Your task to perform on an android device: install app "PUBG MOBILE" Image 0: 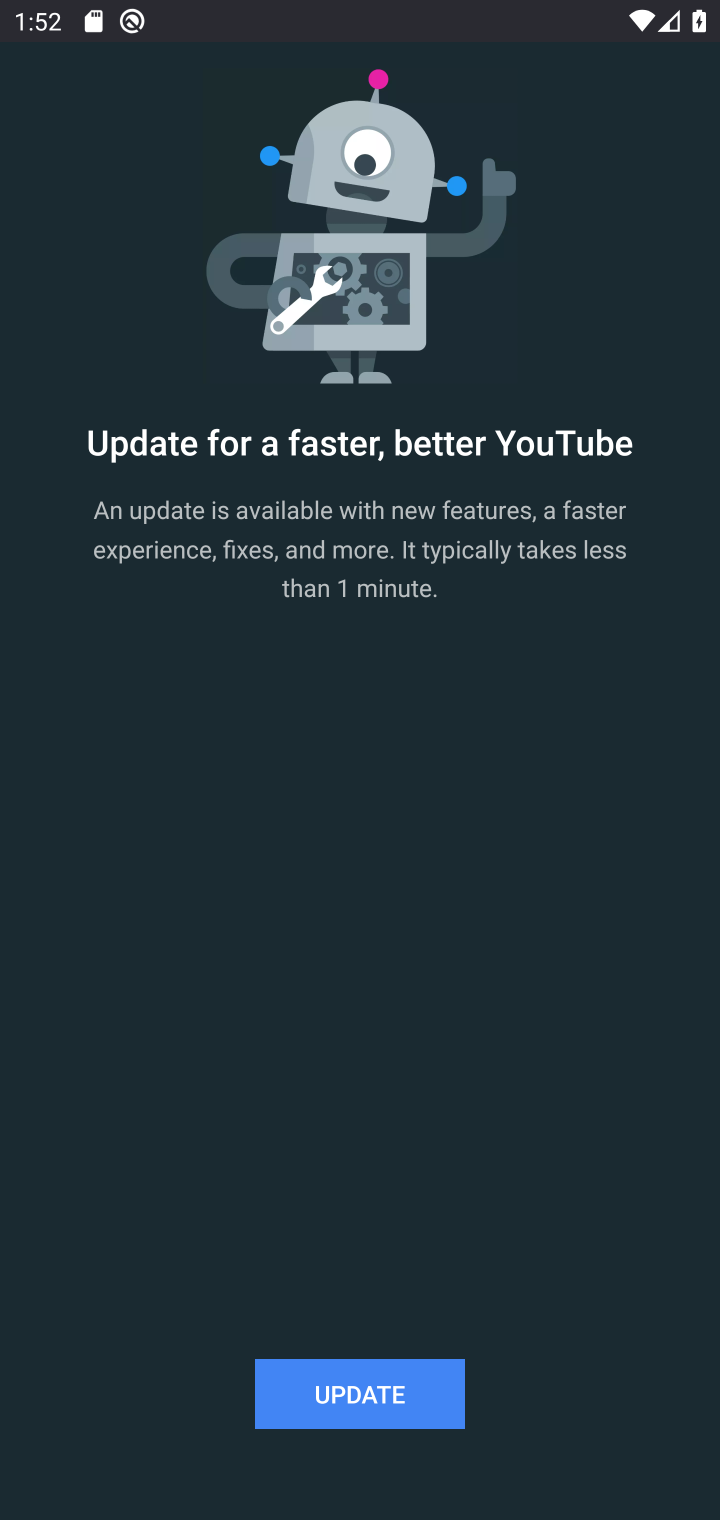
Step 0: press home button
Your task to perform on an android device: install app "PUBG MOBILE" Image 1: 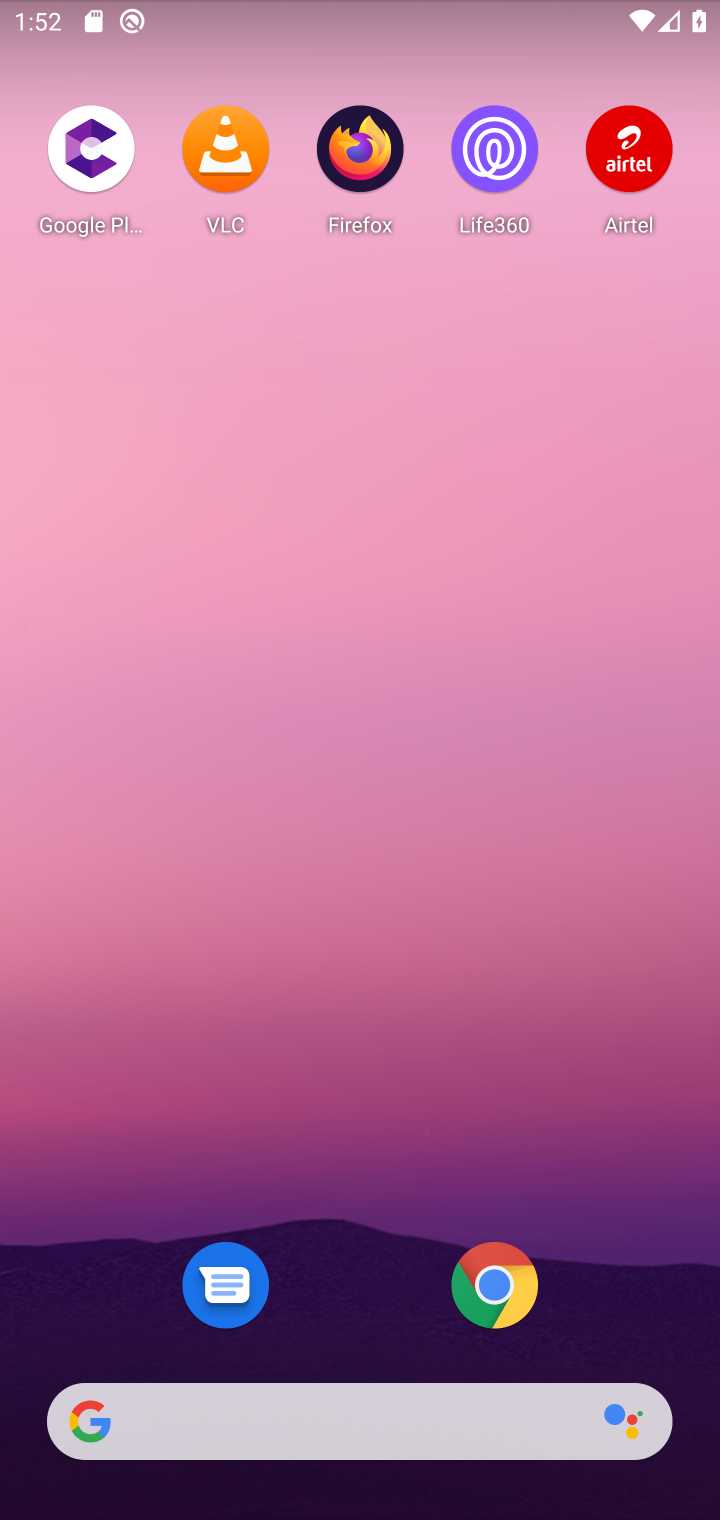
Step 1: drag from (648, 1091) to (406, 521)
Your task to perform on an android device: install app "PUBG MOBILE" Image 2: 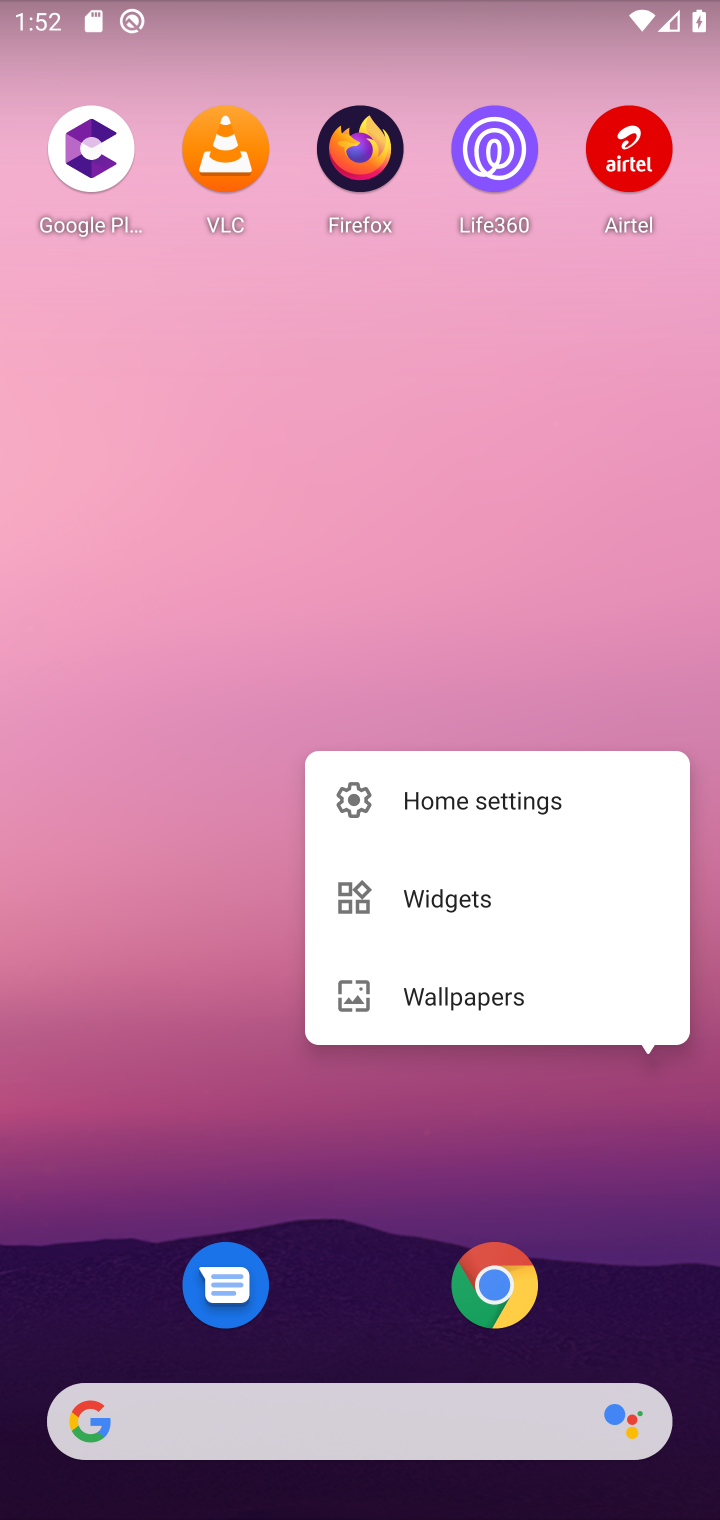
Step 2: click (277, 1075)
Your task to perform on an android device: install app "PUBG MOBILE" Image 3: 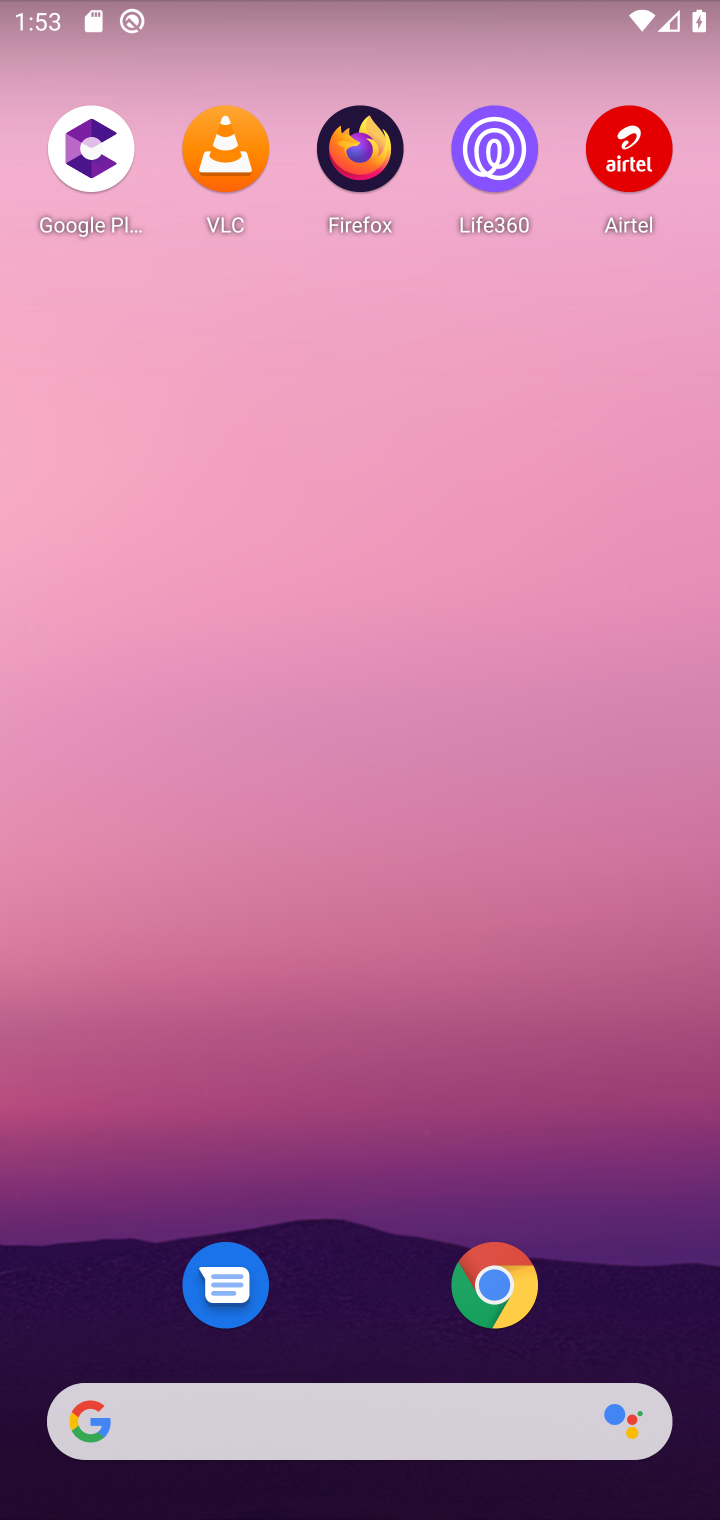
Step 3: drag from (394, 1159) to (495, 736)
Your task to perform on an android device: install app "PUBG MOBILE" Image 4: 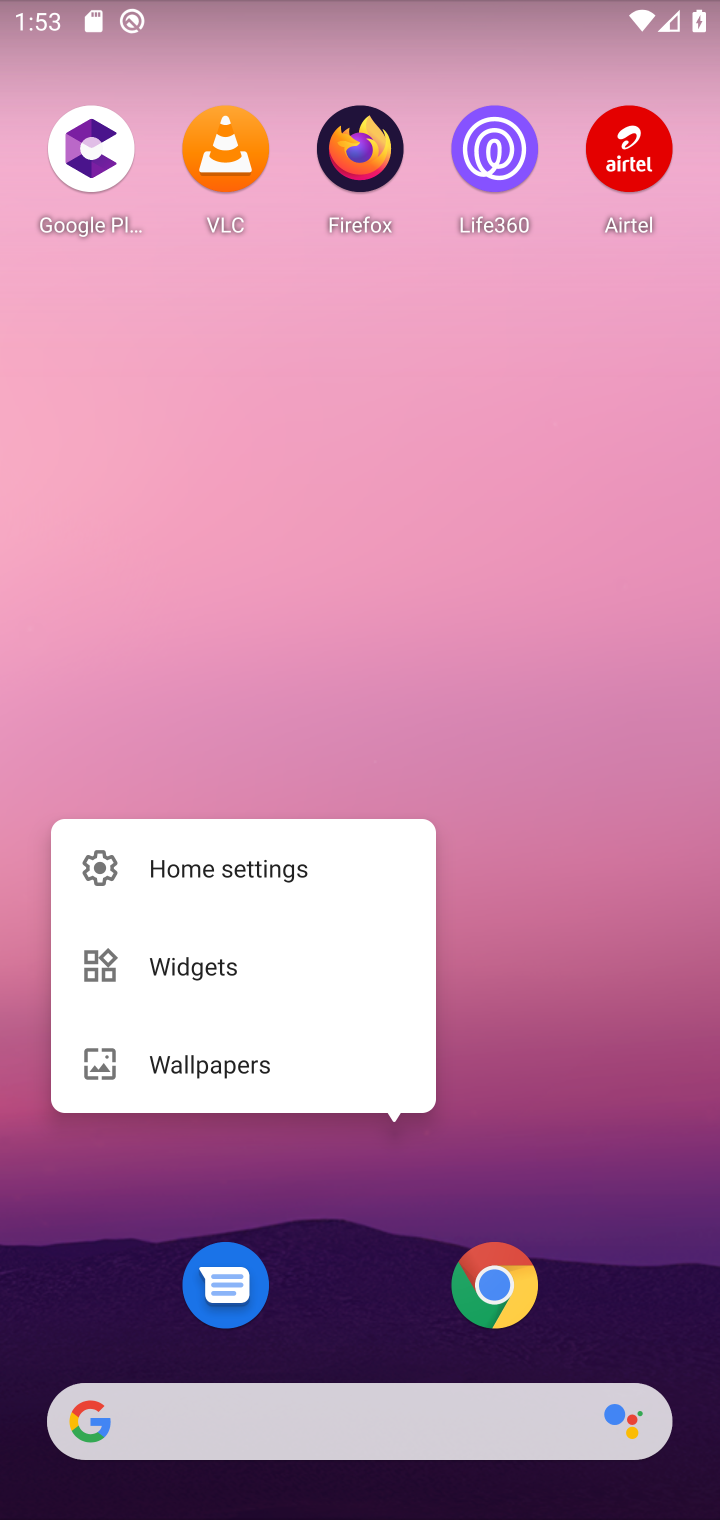
Step 4: click (505, 753)
Your task to perform on an android device: install app "PUBG MOBILE" Image 5: 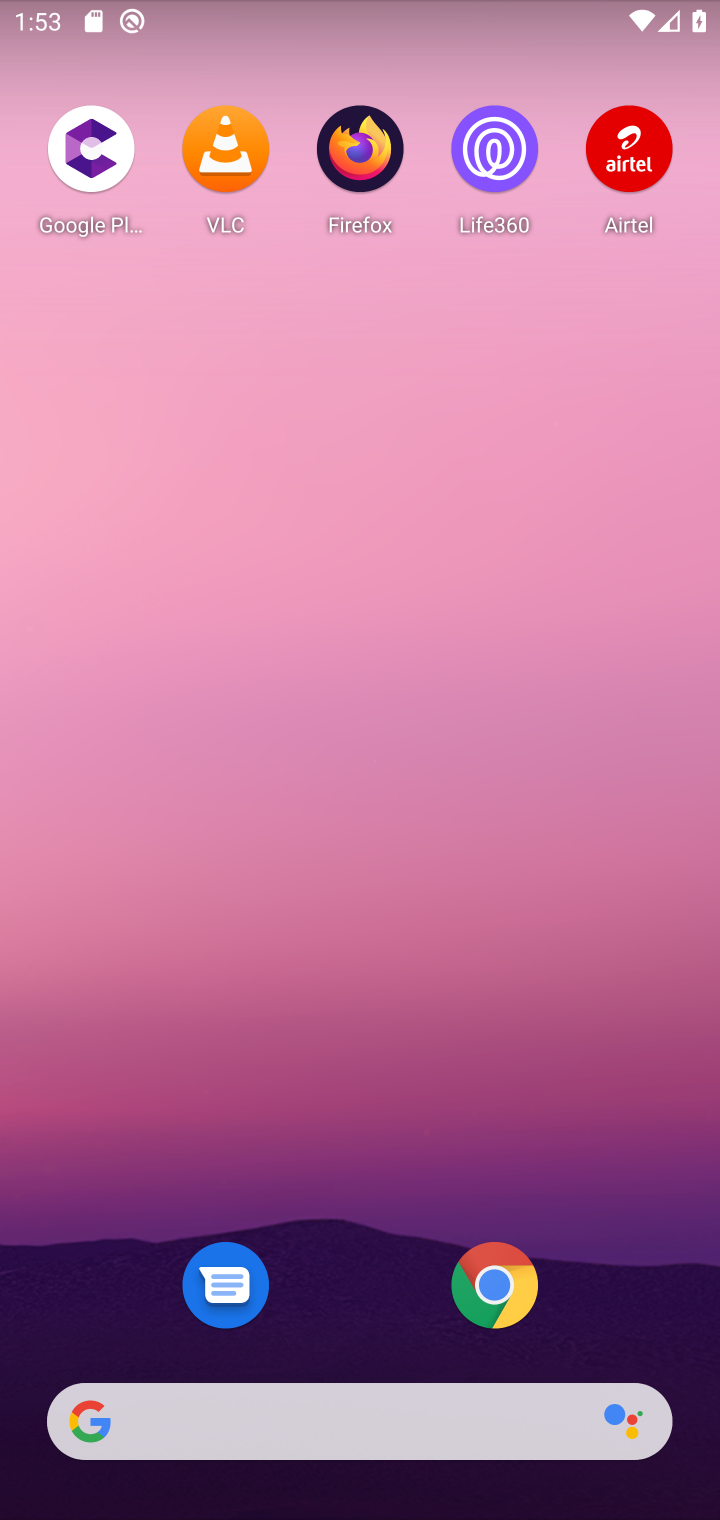
Step 5: drag from (406, 1111) to (425, 178)
Your task to perform on an android device: install app "PUBG MOBILE" Image 6: 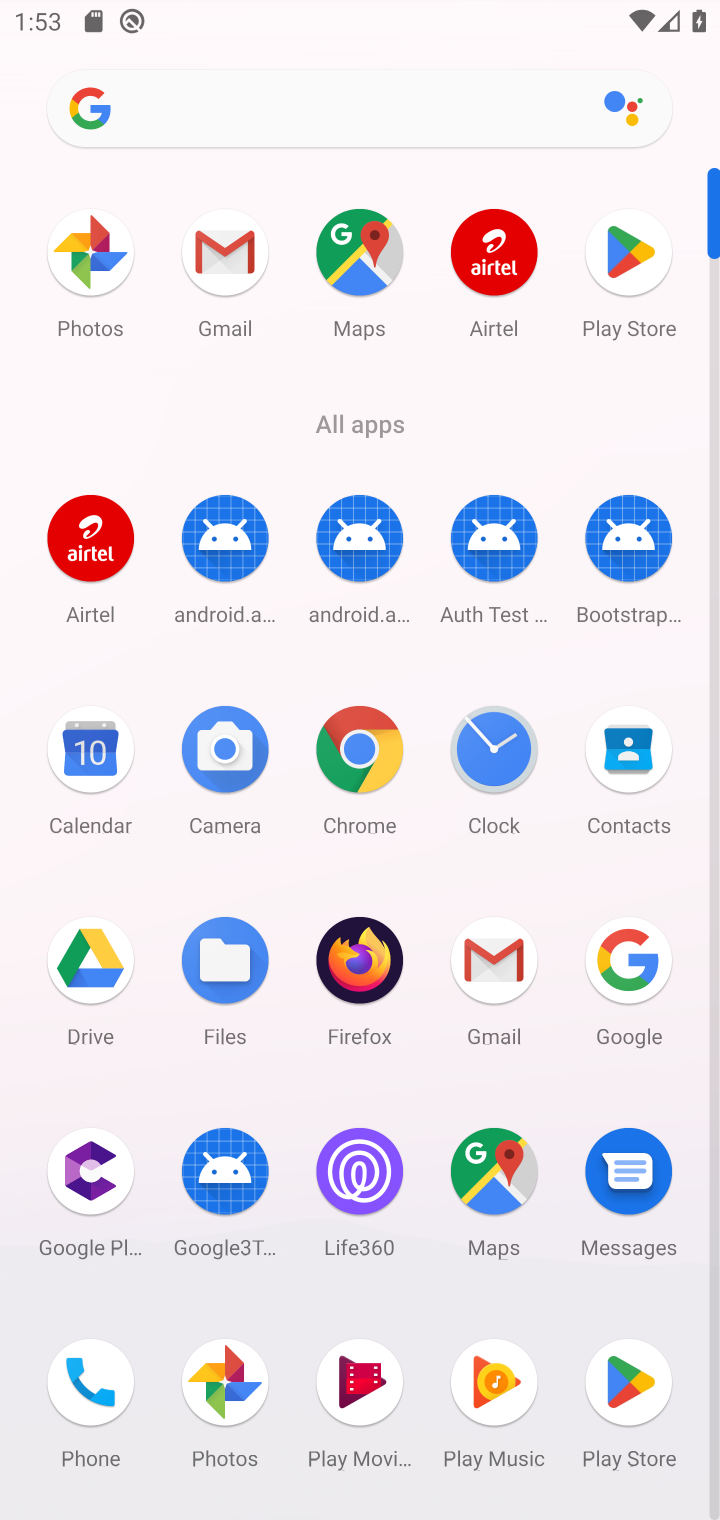
Step 6: click (642, 273)
Your task to perform on an android device: install app "PUBG MOBILE" Image 7: 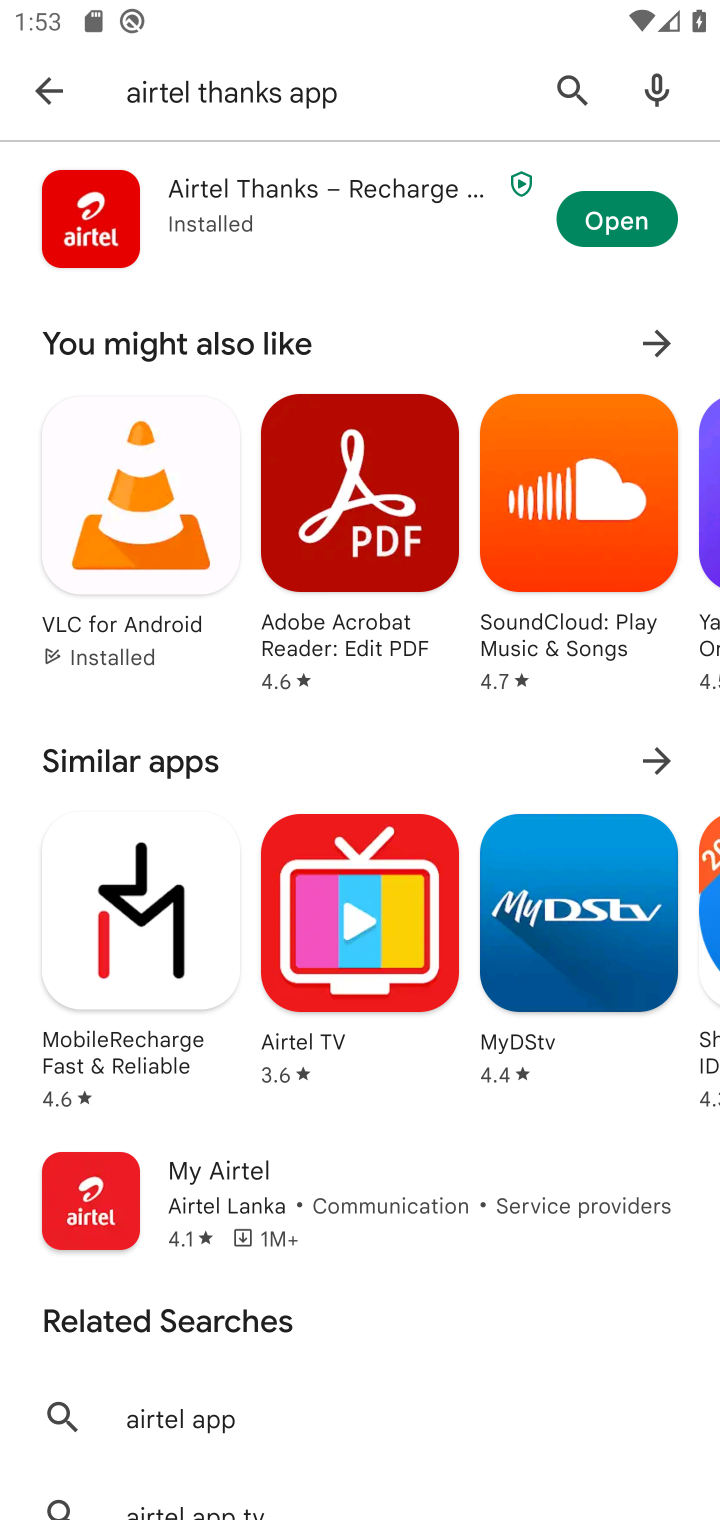
Step 7: click (574, 84)
Your task to perform on an android device: install app "PUBG MOBILE" Image 8: 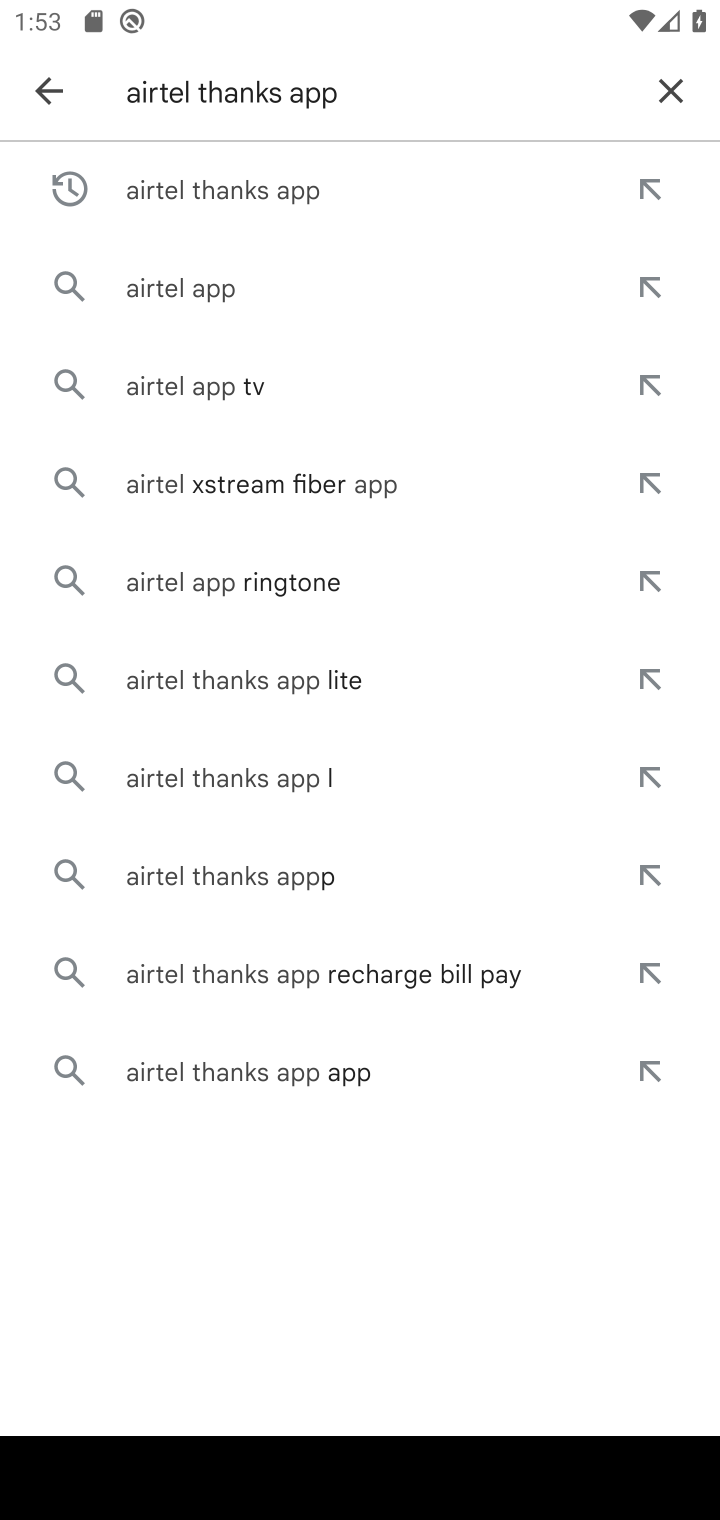
Step 8: click (656, 91)
Your task to perform on an android device: install app "PUBG MOBILE" Image 9: 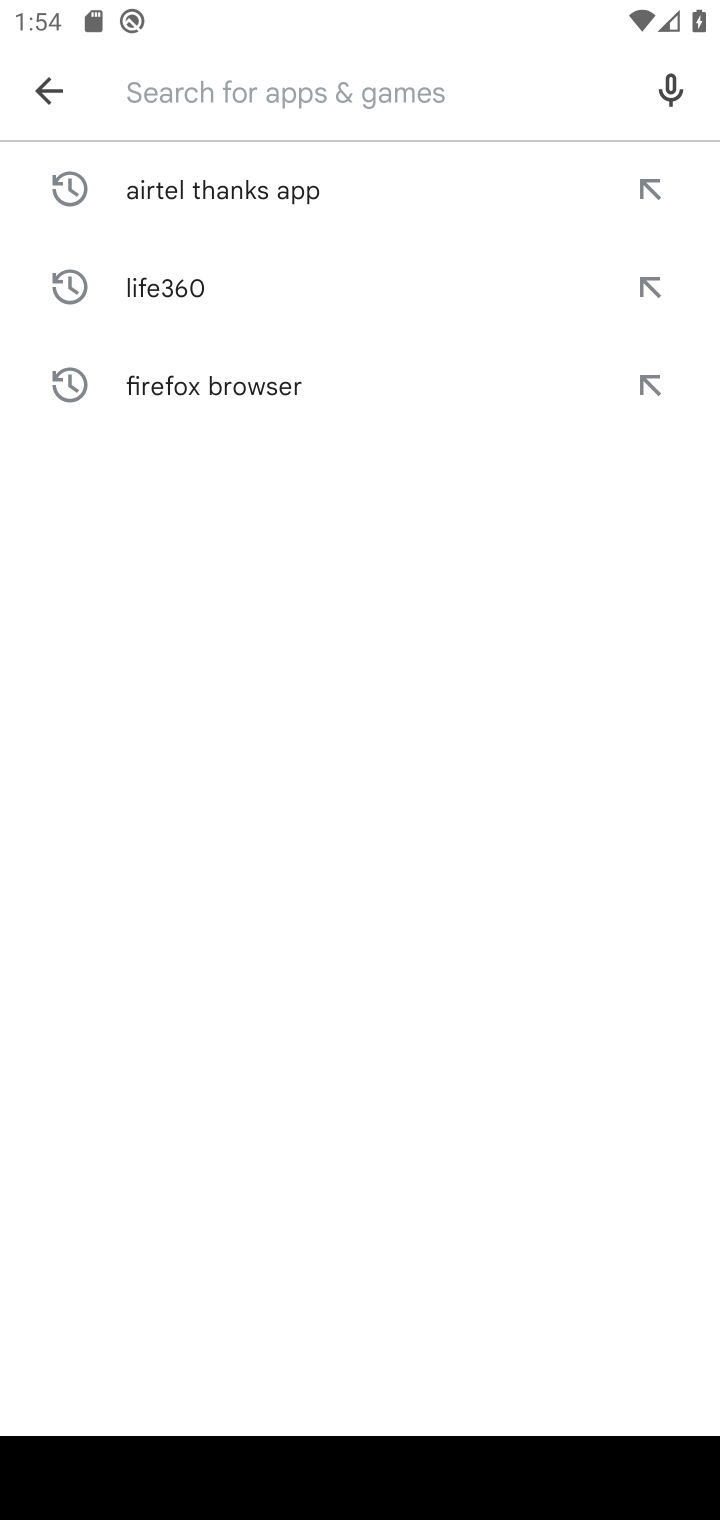
Step 9: type "pubg mobile"
Your task to perform on an android device: install app "PUBG MOBILE" Image 10: 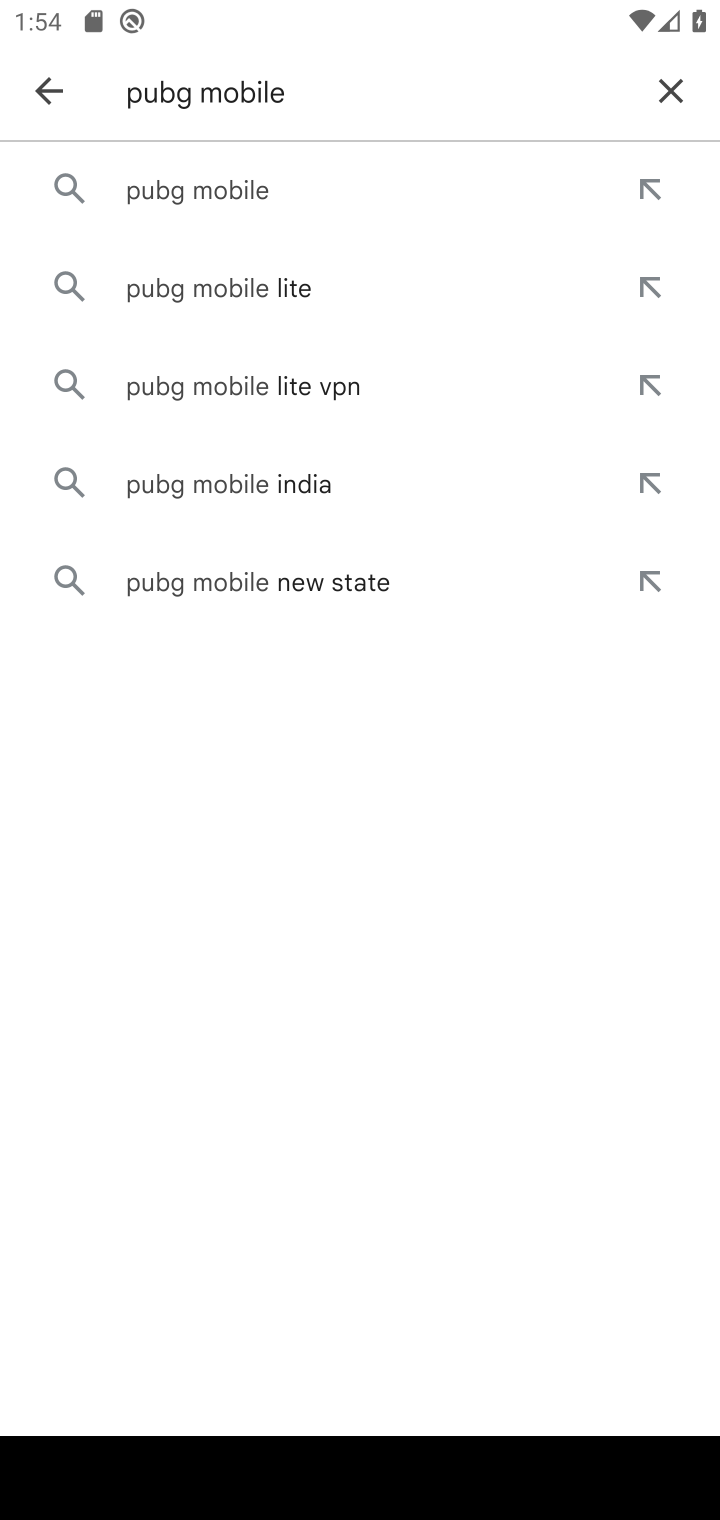
Step 10: click (289, 181)
Your task to perform on an android device: install app "PUBG MOBILE" Image 11: 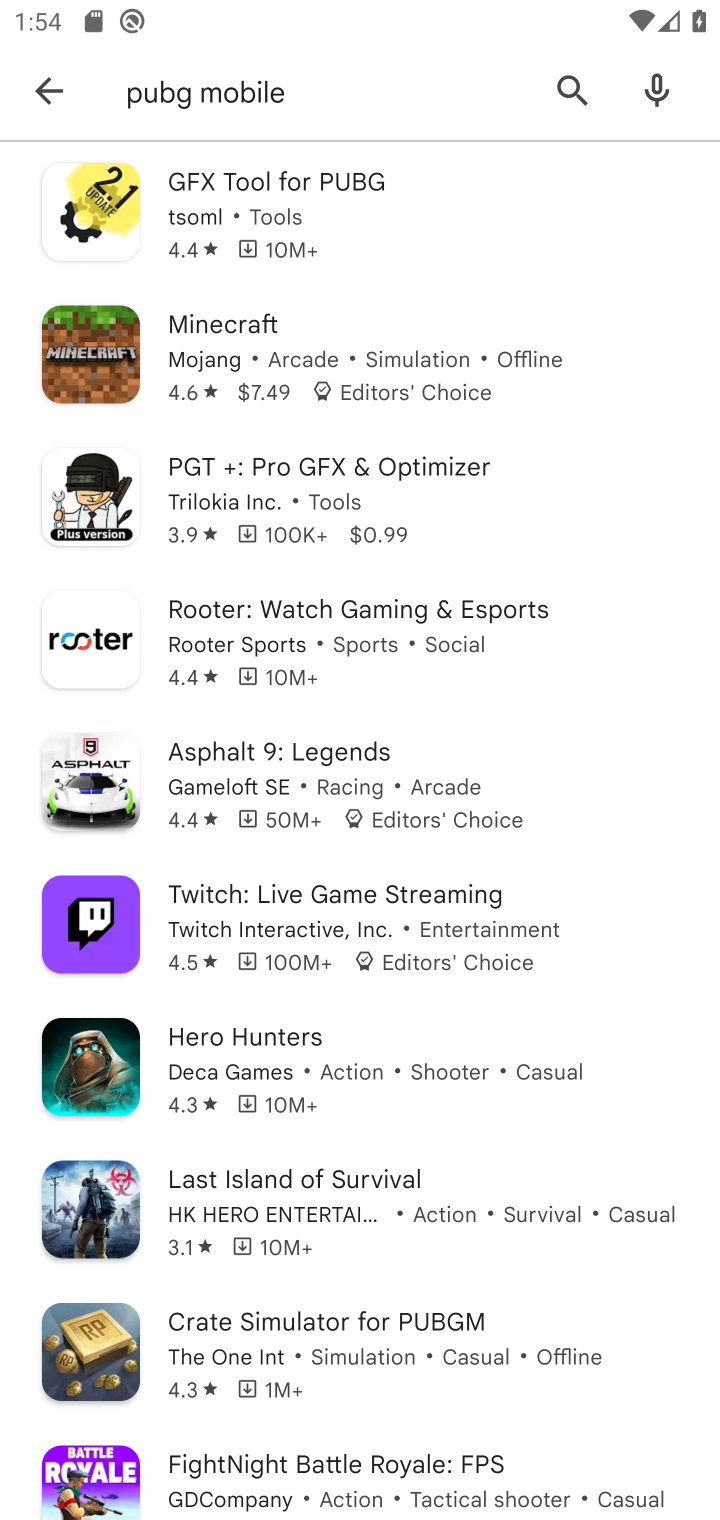
Step 11: task complete